Your task to perform on an android device: open a bookmark in the chrome app Image 0: 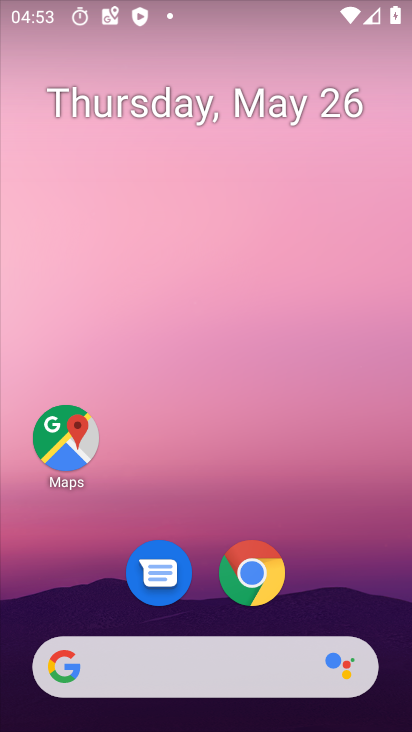
Step 0: click (250, 570)
Your task to perform on an android device: open a bookmark in the chrome app Image 1: 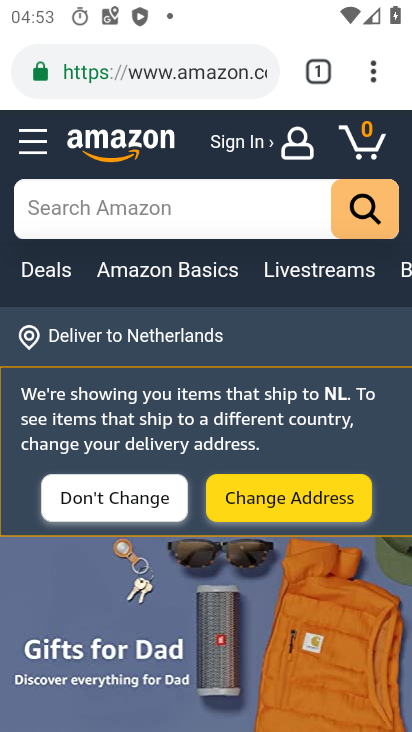
Step 1: click (371, 74)
Your task to perform on an android device: open a bookmark in the chrome app Image 2: 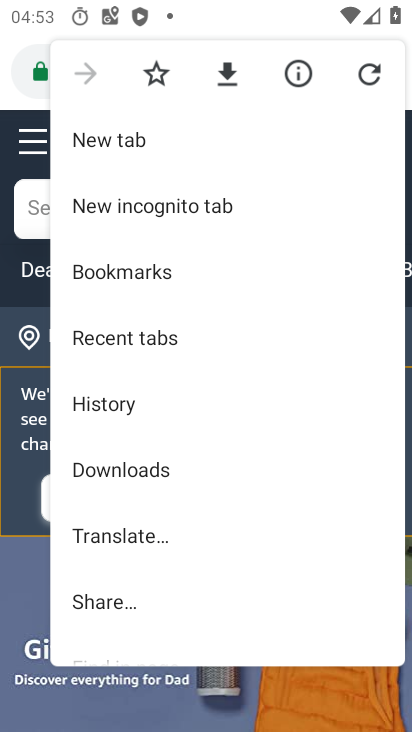
Step 2: click (139, 279)
Your task to perform on an android device: open a bookmark in the chrome app Image 3: 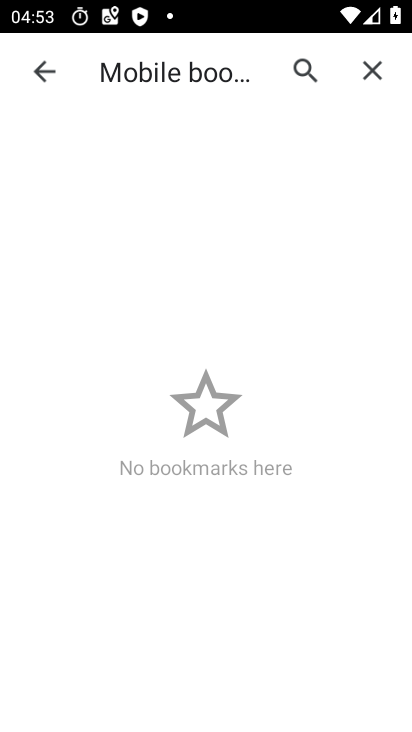
Step 3: task complete